Your task to perform on an android device: toggle notifications settings in the gmail app Image 0: 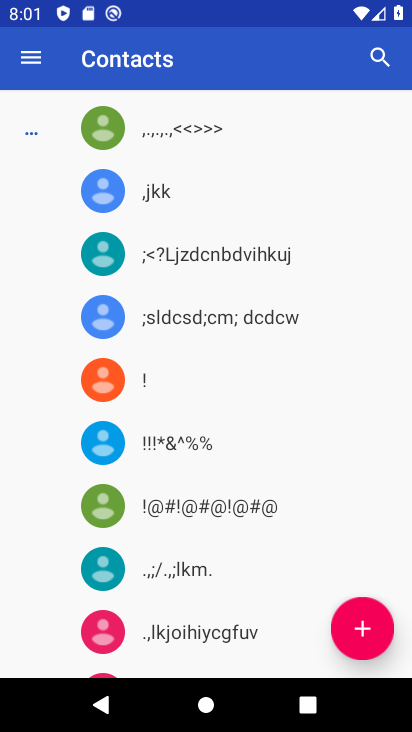
Step 0: press home button
Your task to perform on an android device: toggle notifications settings in the gmail app Image 1: 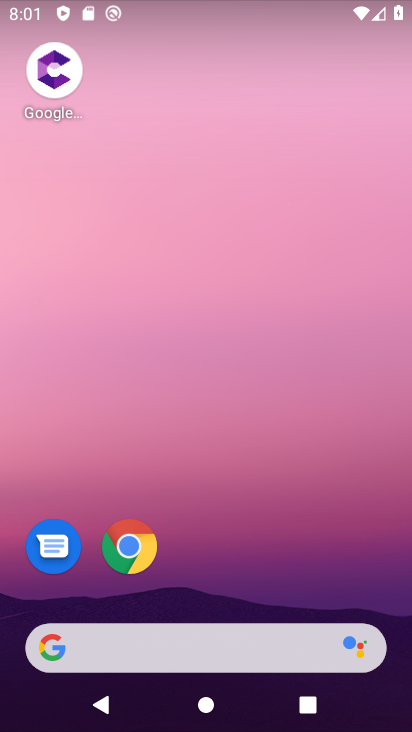
Step 1: drag from (327, 541) to (332, 46)
Your task to perform on an android device: toggle notifications settings in the gmail app Image 2: 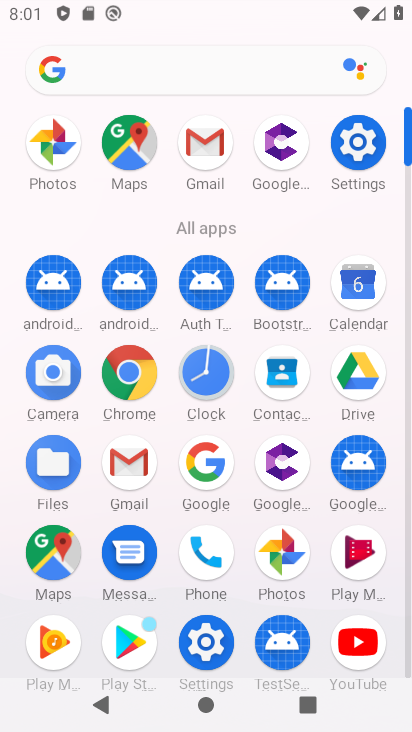
Step 2: click (201, 144)
Your task to perform on an android device: toggle notifications settings in the gmail app Image 3: 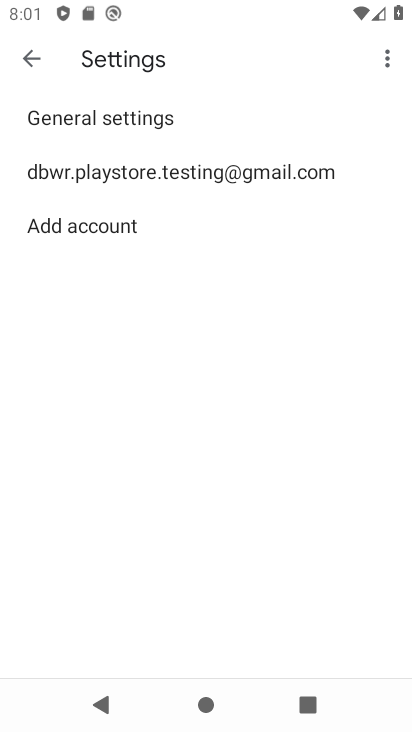
Step 3: click (24, 46)
Your task to perform on an android device: toggle notifications settings in the gmail app Image 4: 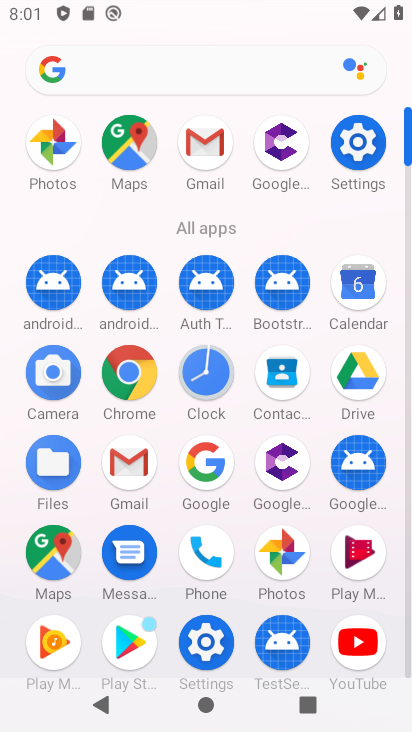
Step 4: click (201, 131)
Your task to perform on an android device: toggle notifications settings in the gmail app Image 5: 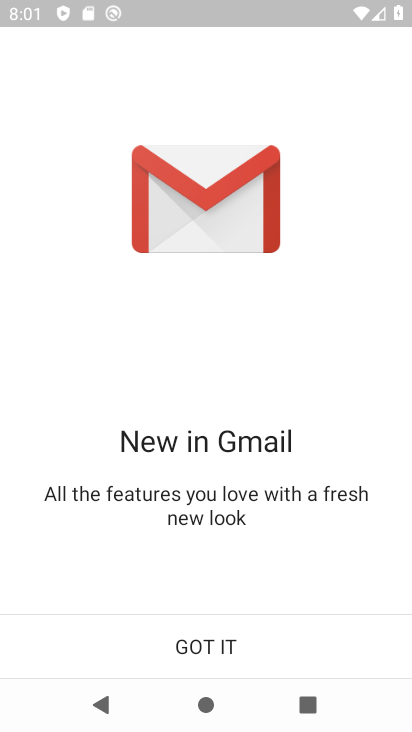
Step 5: click (180, 647)
Your task to perform on an android device: toggle notifications settings in the gmail app Image 6: 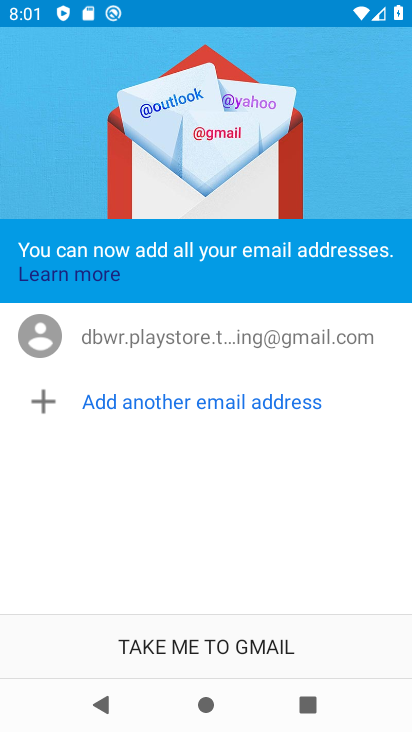
Step 6: click (180, 647)
Your task to perform on an android device: toggle notifications settings in the gmail app Image 7: 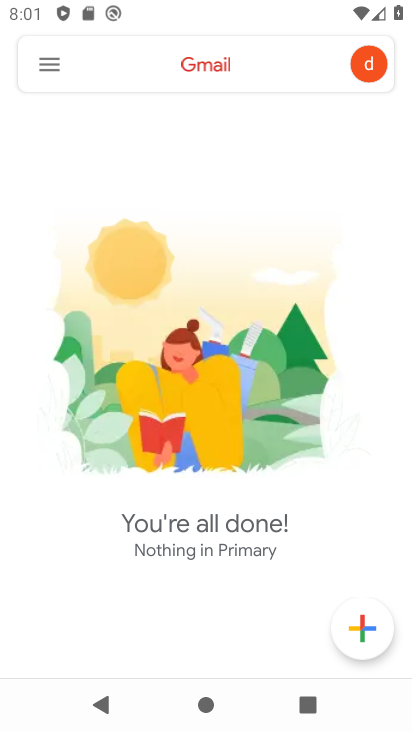
Step 7: click (54, 68)
Your task to perform on an android device: toggle notifications settings in the gmail app Image 8: 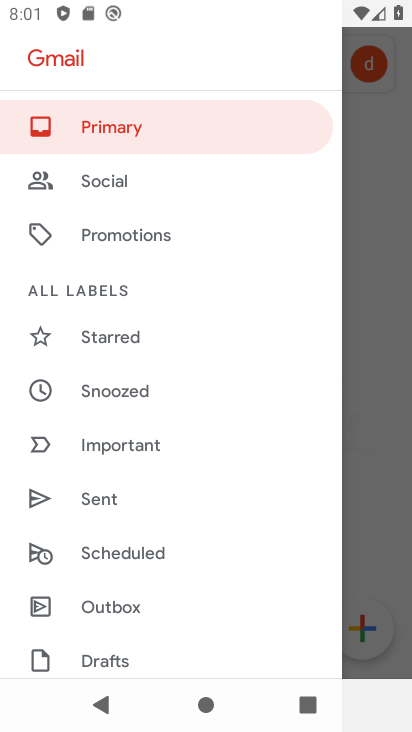
Step 8: drag from (141, 603) to (358, 84)
Your task to perform on an android device: toggle notifications settings in the gmail app Image 9: 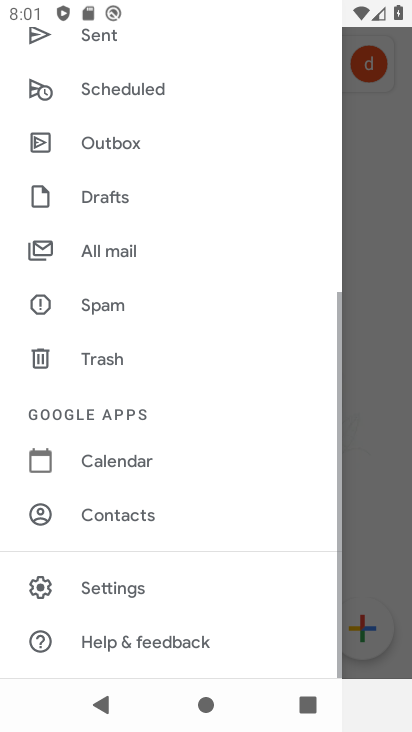
Step 9: click (118, 597)
Your task to perform on an android device: toggle notifications settings in the gmail app Image 10: 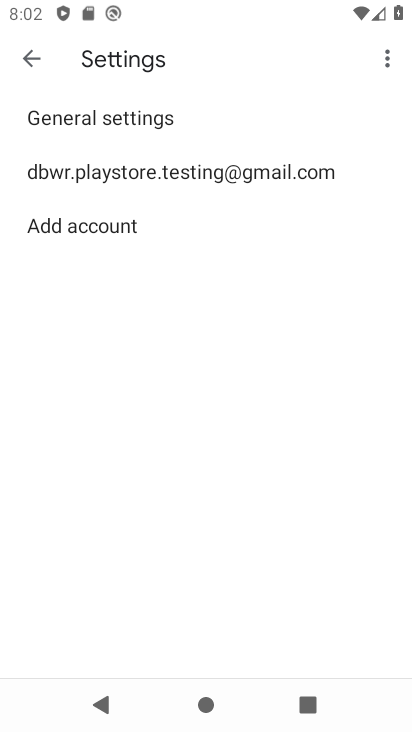
Step 10: click (24, 57)
Your task to perform on an android device: toggle notifications settings in the gmail app Image 11: 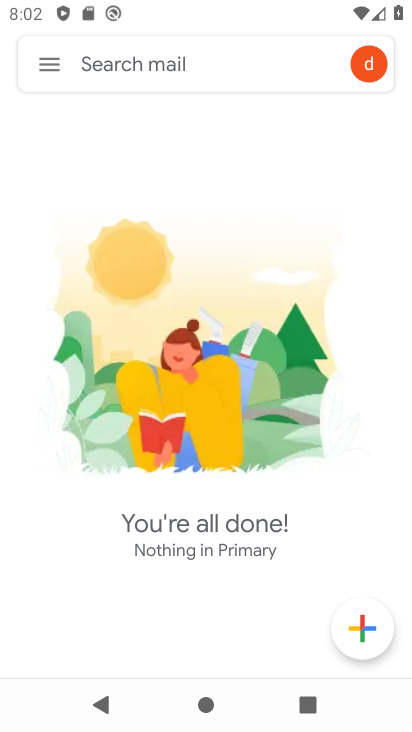
Step 11: click (24, 56)
Your task to perform on an android device: toggle notifications settings in the gmail app Image 12: 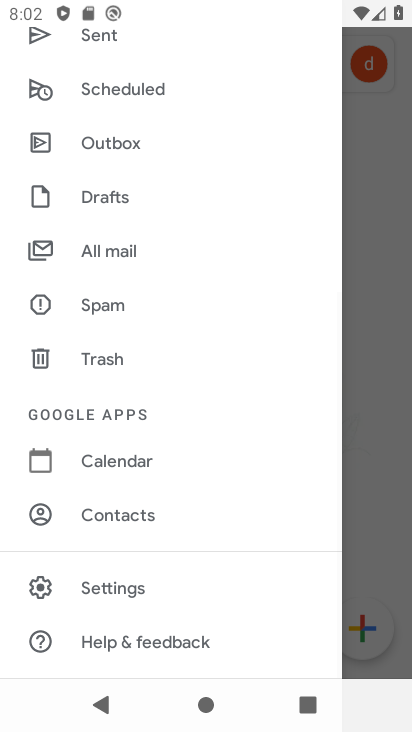
Step 12: click (123, 584)
Your task to perform on an android device: toggle notifications settings in the gmail app Image 13: 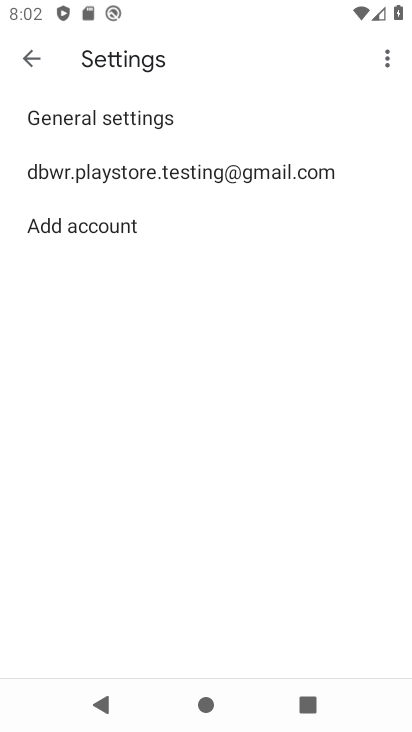
Step 13: click (150, 160)
Your task to perform on an android device: toggle notifications settings in the gmail app Image 14: 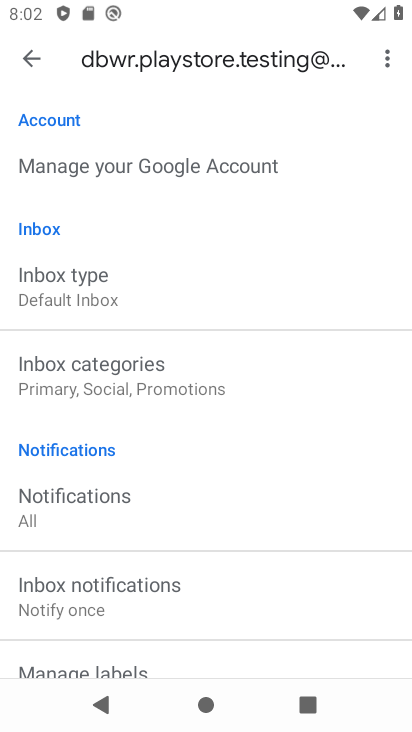
Step 14: click (109, 498)
Your task to perform on an android device: toggle notifications settings in the gmail app Image 15: 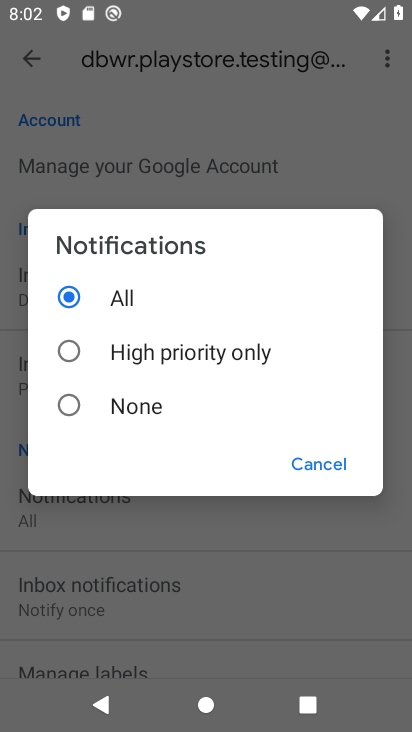
Step 15: click (77, 358)
Your task to perform on an android device: toggle notifications settings in the gmail app Image 16: 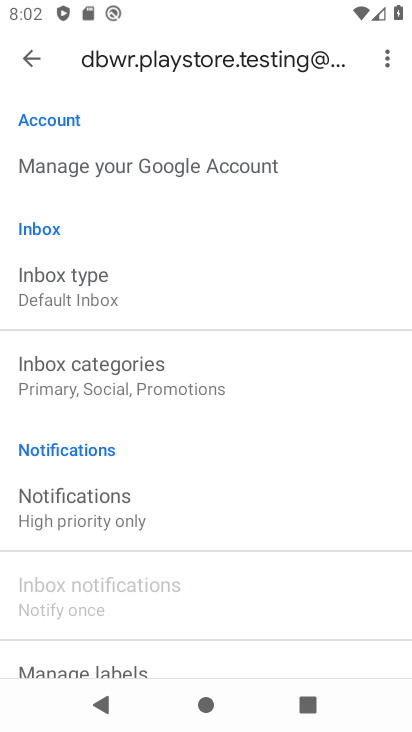
Step 16: task complete